Your task to perform on an android device: change notifications settings Image 0: 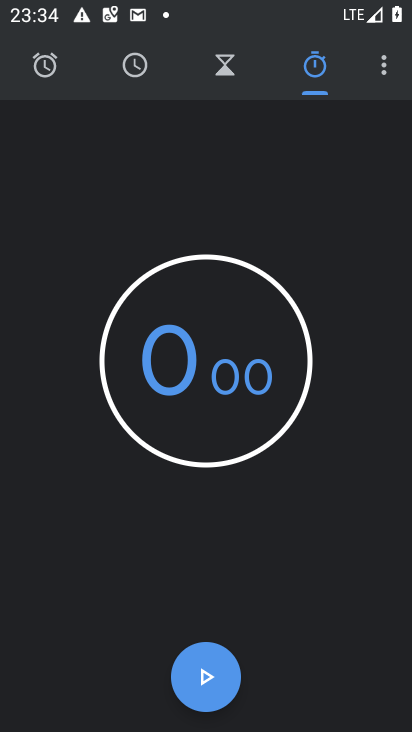
Step 0: press home button
Your task to perform on an android device: change notifications settings Image 1: 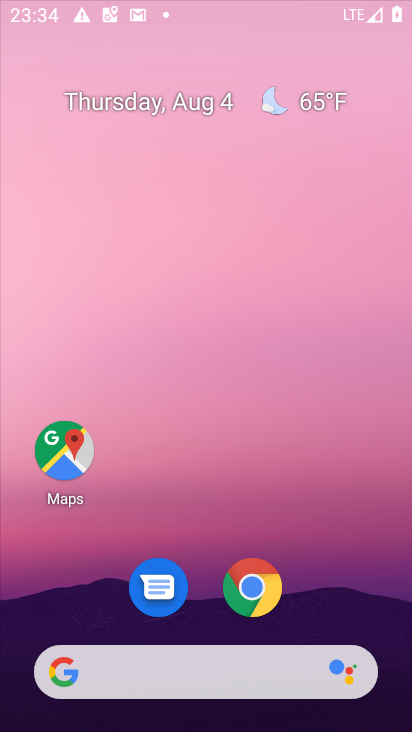
Step 1: drag from (216, 629) to (271, 177)
Your task to perform on an android device: change notifications settings Image 2: 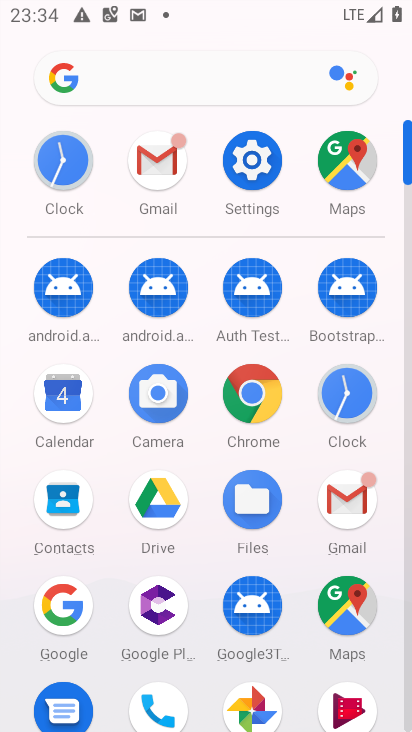
Step 2: click (258, 160)
Your task to perform on an android device: change notifications settings Image 3: 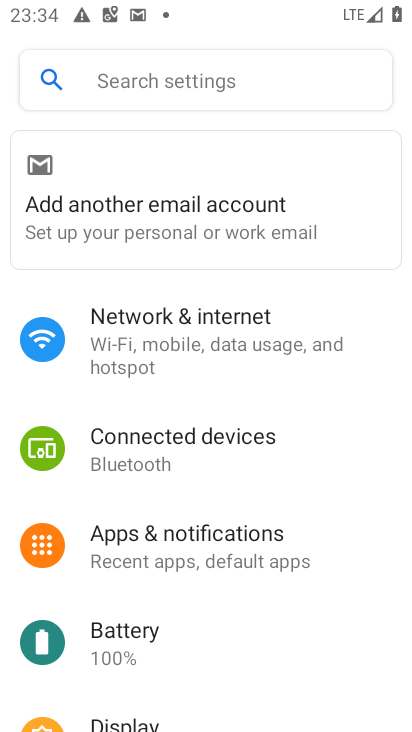
Step 3: click (161, 522)
Your task to perform on an android device: change notifications settings Image 4: 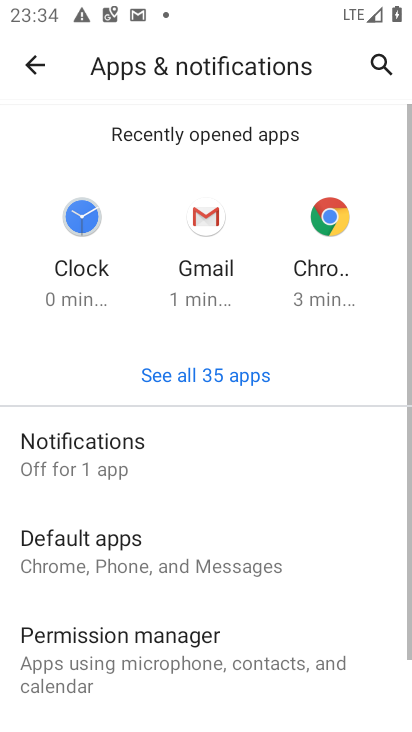
Step 4: click (151, 458)
Your task to perform on an android device: change notifications settings Image 5: 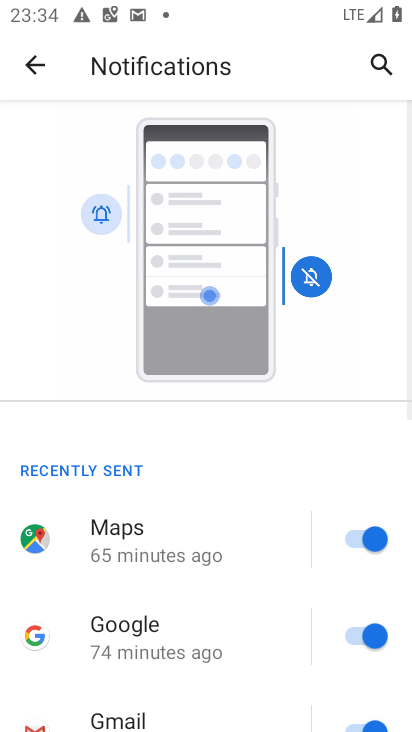
Step 5: drag from (158, 566) to (209, 216)
Your task to perform on an android device: change notifications settings Image 6: 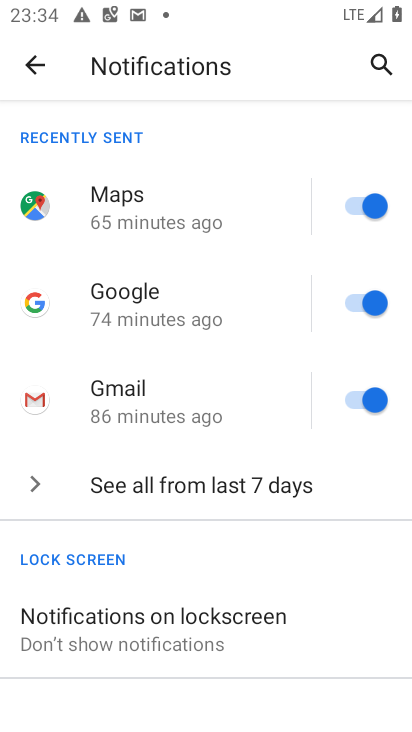
Step 6: click (184, 483)
Your task to perform on an android device: change notifications settings Image 7: 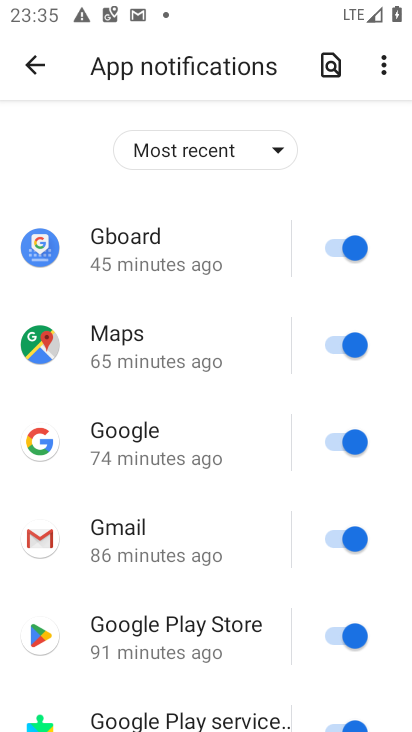
Step 7: click (345, 231)
Your task to perform on an android device: change notifications settings Image 8: 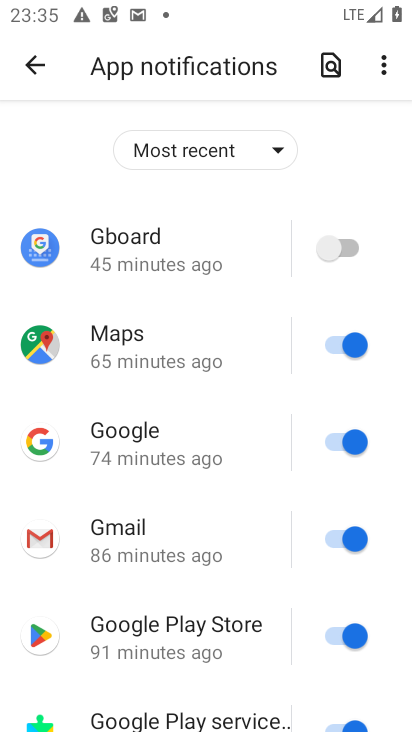
Step 8: click (329, 341)
Your task to perform on an android device: change notifications settings Image 9: 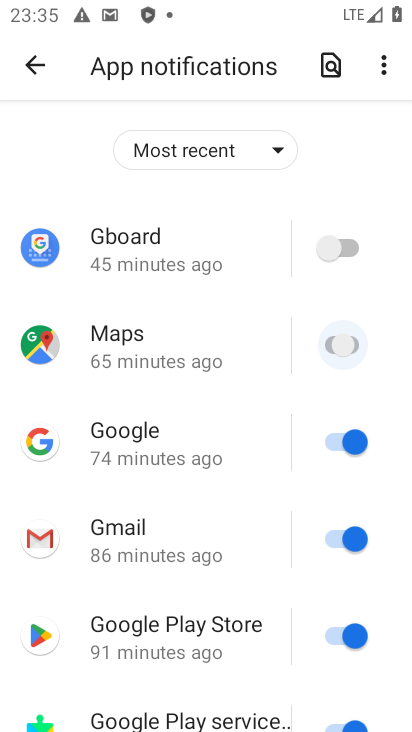
Step 9: click (361, 445)
Your task to perform on an android device: change notifications settings Image 10: 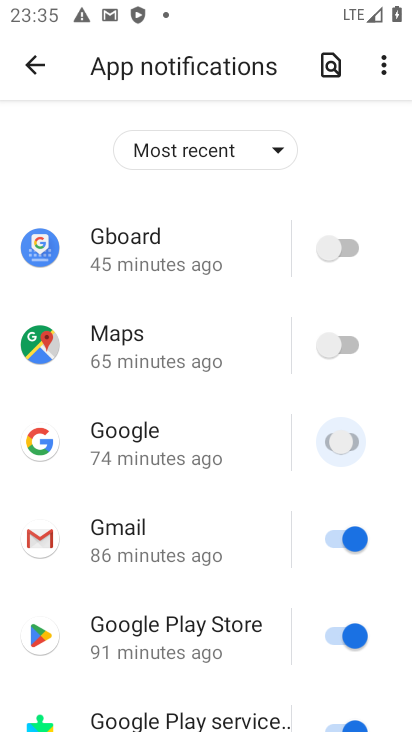
Step 10: click (346, 524)
Your task to perform on an android device: change notifications settings Image 11: 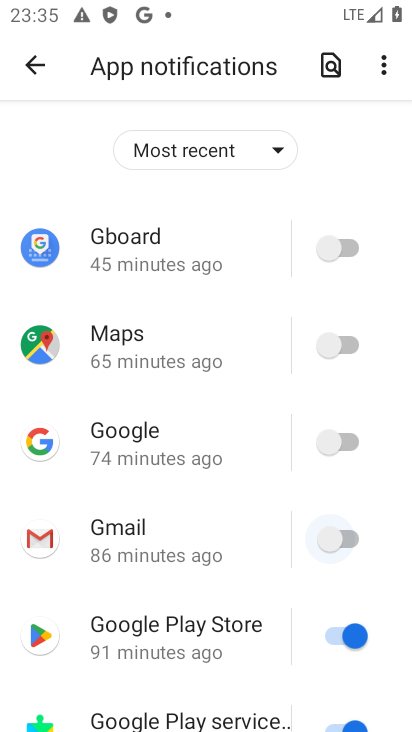
Step 11: click (325, 646)
Your task to perform on an android device: change notifications settings Image 12: 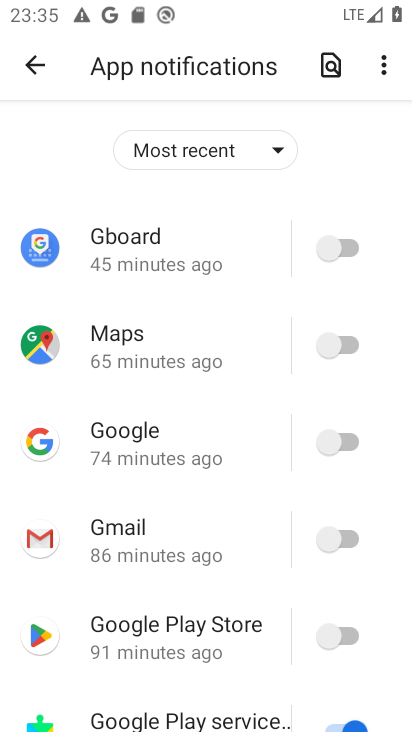
Step 12: drag from (275, 621) to (306, 209)
Your task to perform on an android device: change notifications settings Image 13: 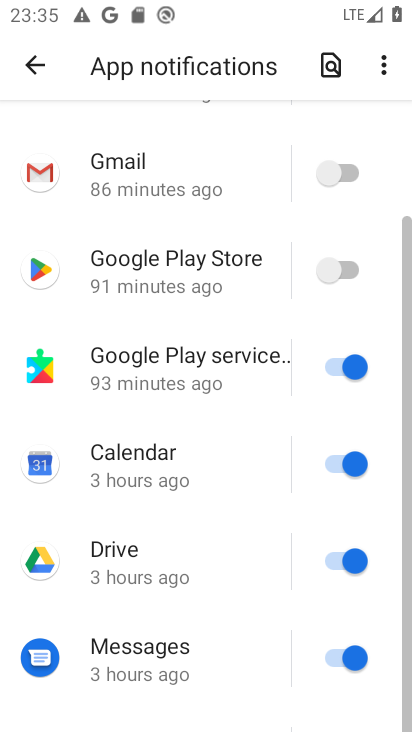
Step 13: click (331, 371)
Your task to perform on an android device: change notifications settings Image 14: 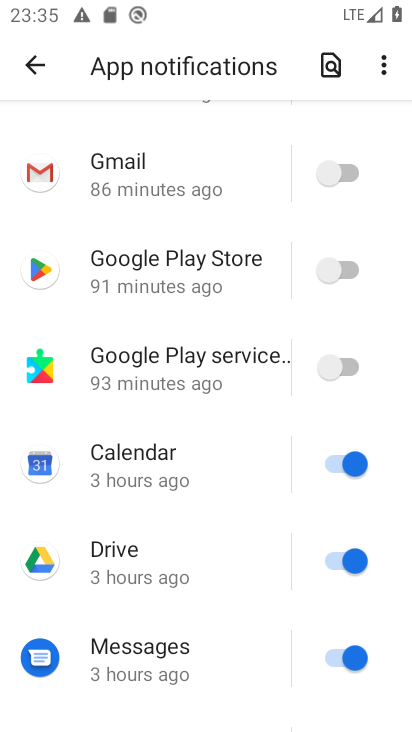
Step 14: click (345, 454)
Your task to perform on an android device: change notifications settings Image 15: 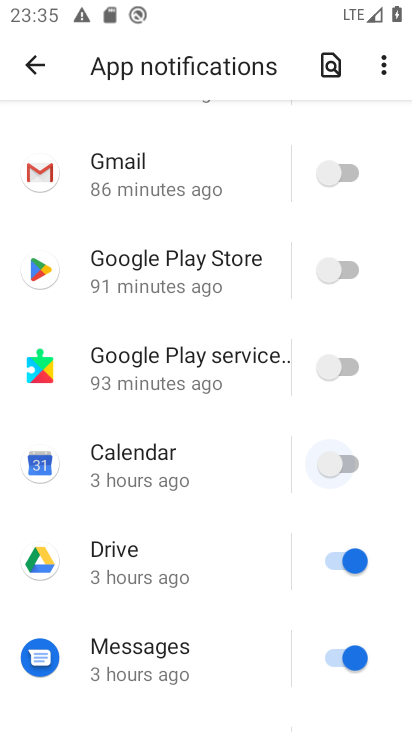
Step 15: click (347, 556)
Your task to perform on an android device: change notifications settings Image 16: 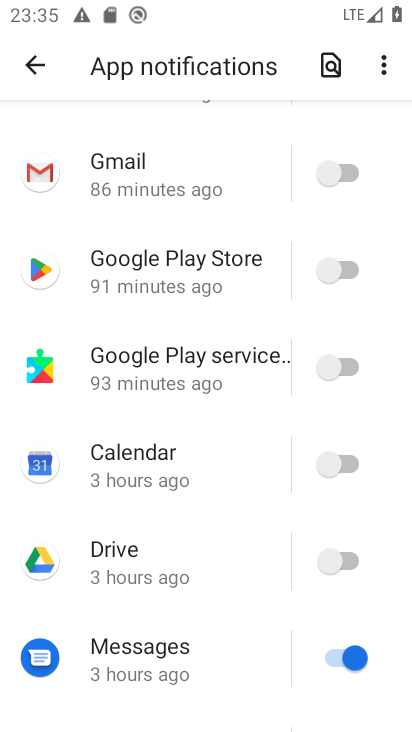
Step 16: click (334, 652)
Your task to perform on an android device: change notifications settings Image 17: 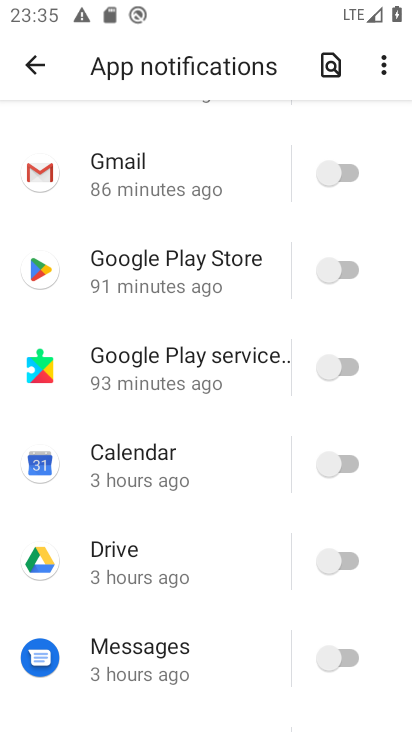
Step 17: drag from (266, 650) to (262, 221)
Your task to perform on an android device: change notifications settings Image 18: 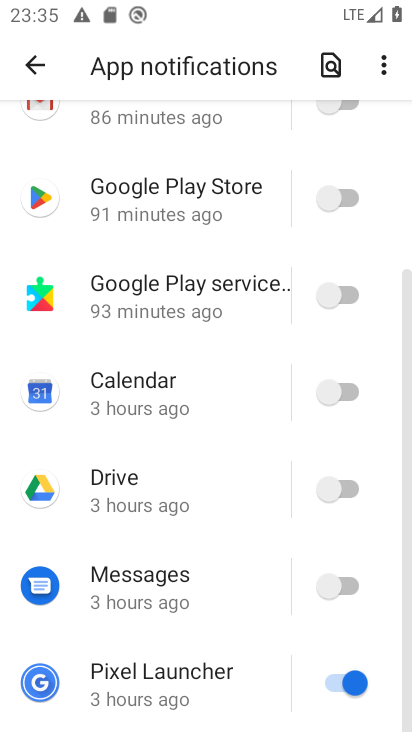
Step 18: click (351, 675)
Your task to perform on an android device: change notifications settings Image 19: 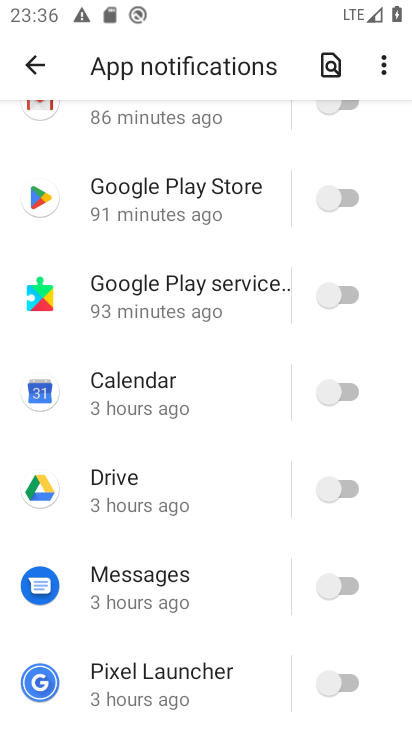
Step 19: task complete